Your task to perform on an android device: Open Amazon Image 0: 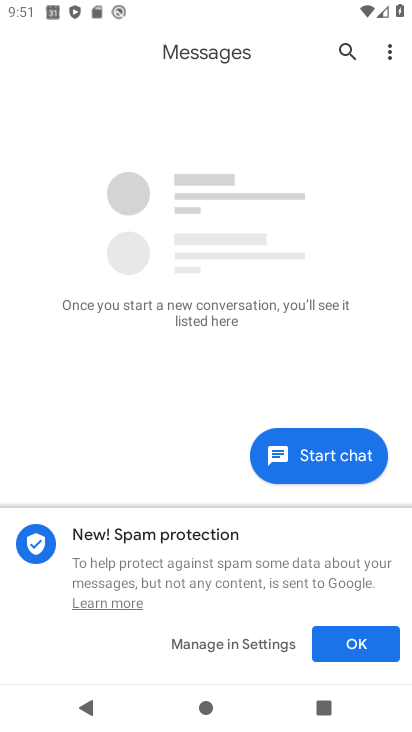
Step 0: press home button
Your task to perform on an android device: Open Amazon Image 1: 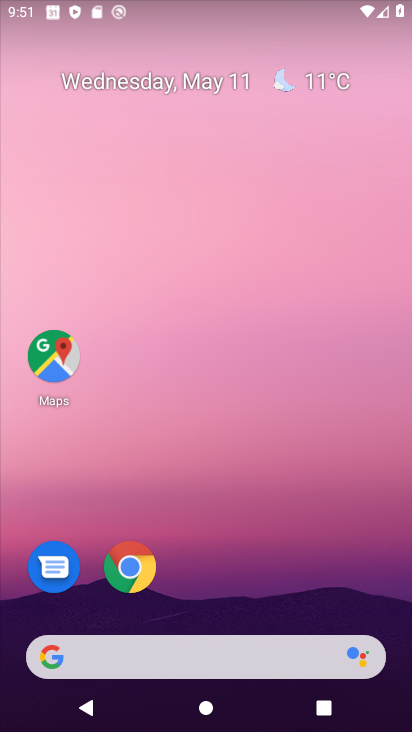
Step 1: drag from (217, 601) to (217, 247)
Your task to perform on an android device: Open Amazon Image 2: 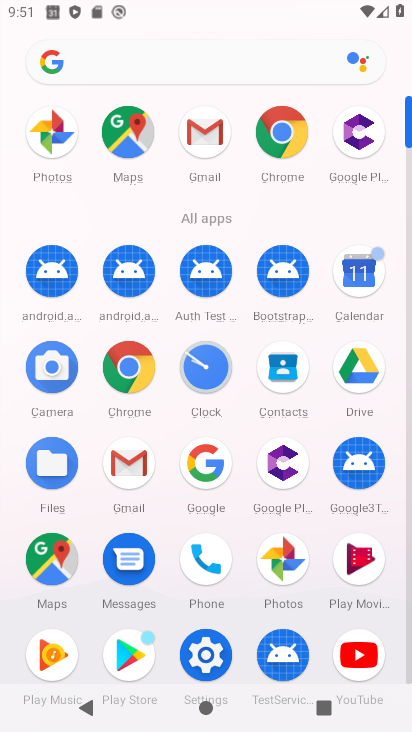
Step 2: click (286, 132)
Your task to perform on an android device: Open Amazon Image 3: 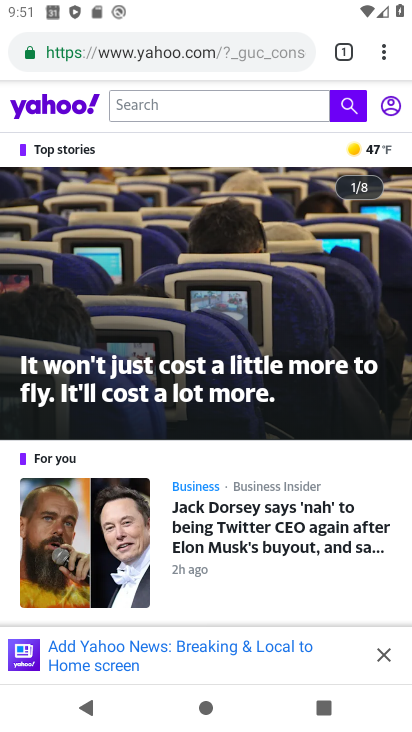
Step 3: click (349, 57)
Your task to perform on an android device: Open Amazon Image 4: 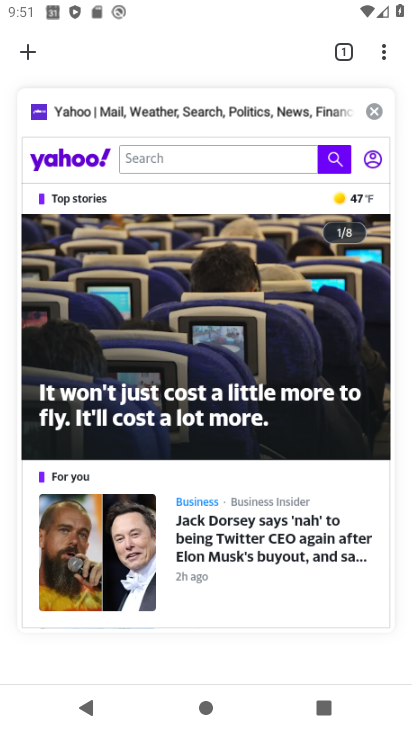
Step 4: click (373, 112)
Your task to perform on an android device: Open Amazon Image 5: 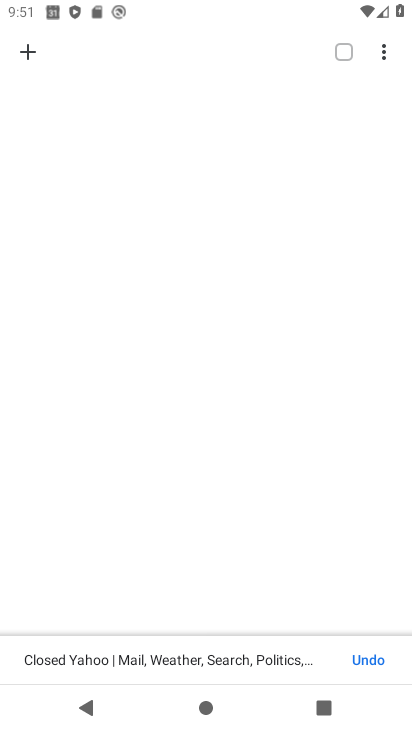
Step 5: click (31, 57)
Your task to perform on an android device: Open Amazon Image 6: 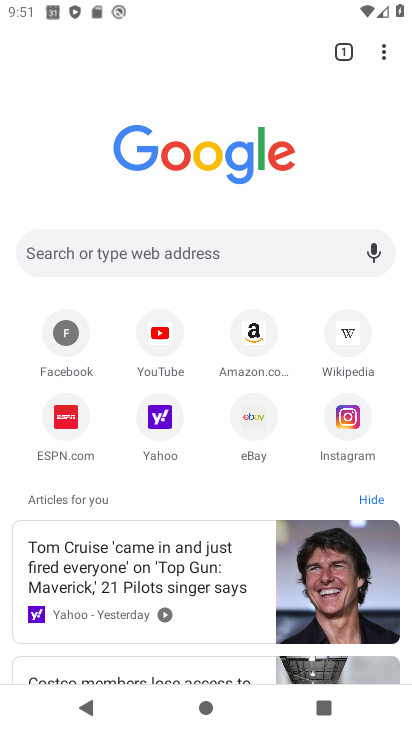
Step 6: click (261, 341)
Your task to perform on an android device: Open Amazon Image 7: 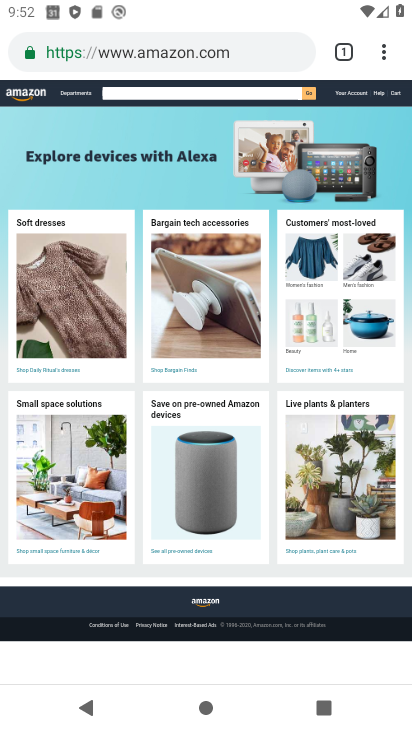
Step 7: task complete